Your task to perform on an android device: all mails in gmail Image 0: 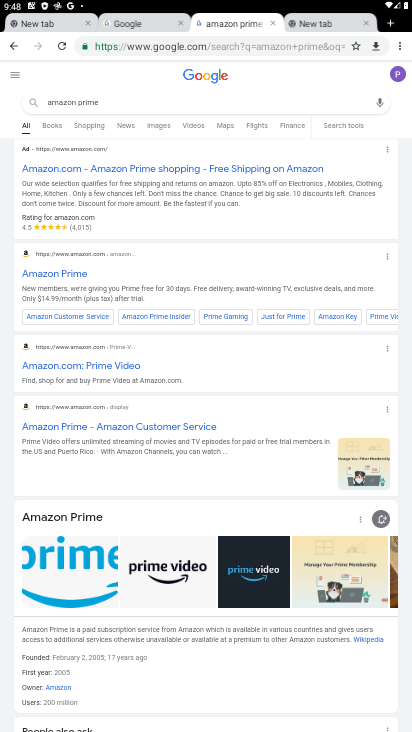
Step 0: press home button
Your task to perform on an android device: all mails in gmail Image 1: 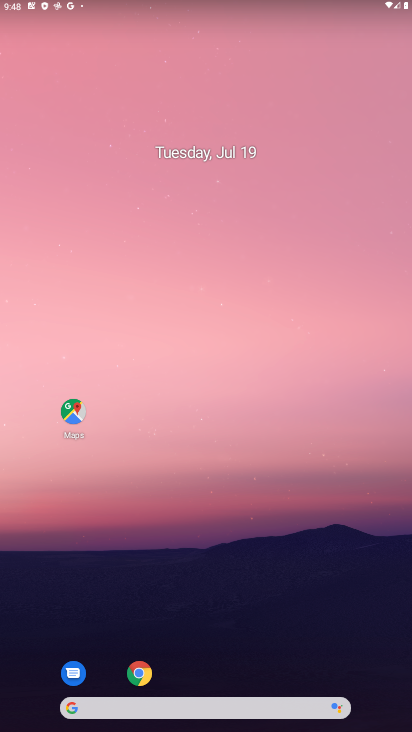
Step 1: drag from (272, 648) to (241, 18)
Your task to perform on an android device: all mails in gmail Image 2: 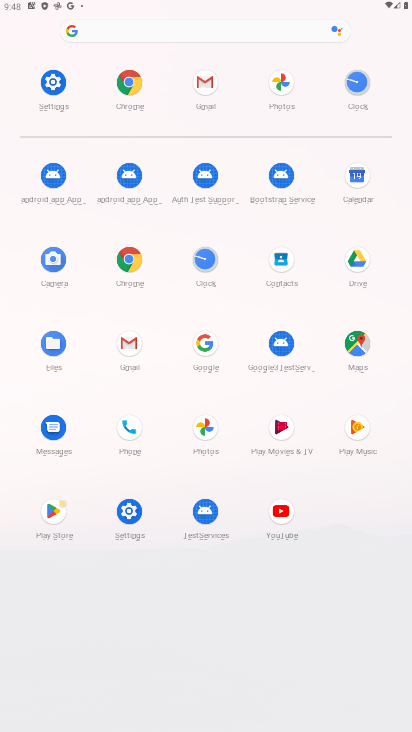
Step 2: click (128, 520)
Your task to perform on an android device: all mails in gmail Image 3: 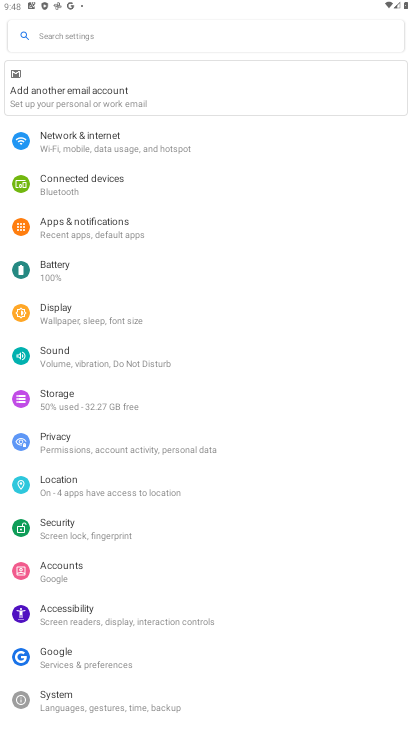
Step 3: press home button
Your task to perform on an android device: all mails in gmail Image 4: 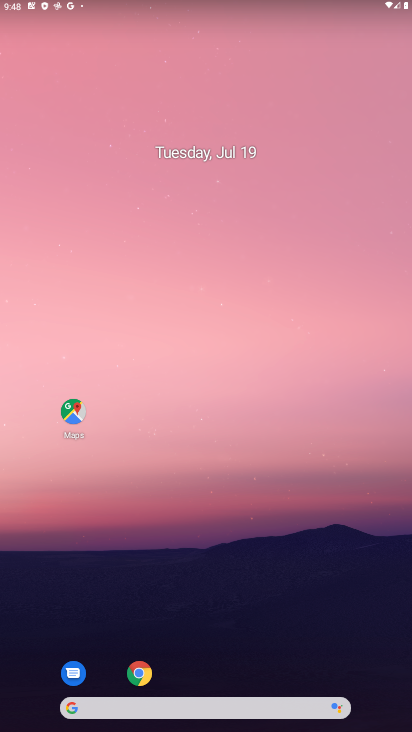
Step 4: drag from (192, 660) to (193, 309)
Your task to perform on an android device: all mails in gmail Image 5: 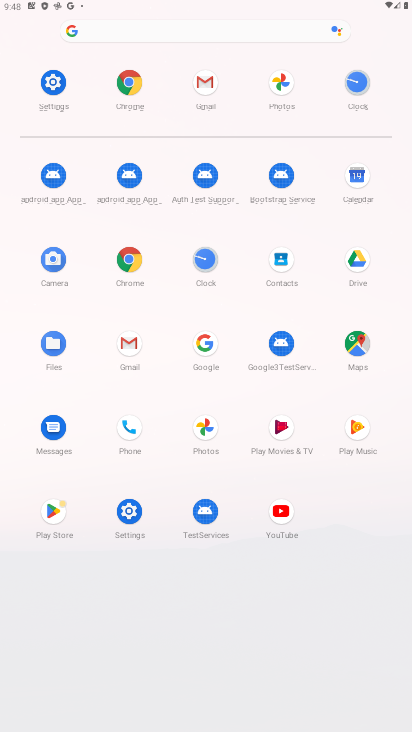
Step 5: click (198, 77)
Your task to perform on an android device: all mails in gmail Image 6: 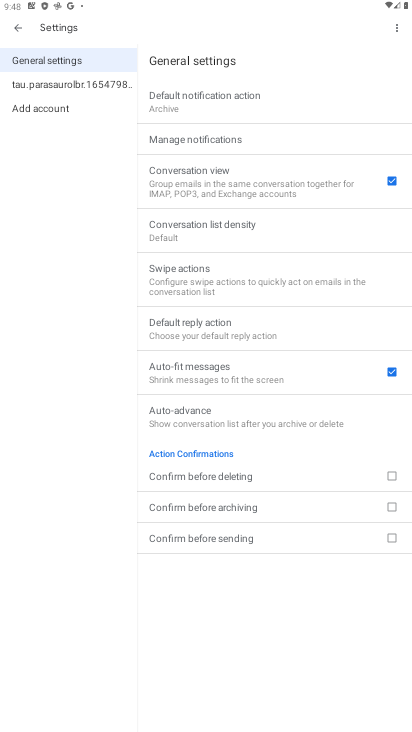
Step 6: click (23, 29)
Your task to perform on an android device: all mails in gmail Image 7: 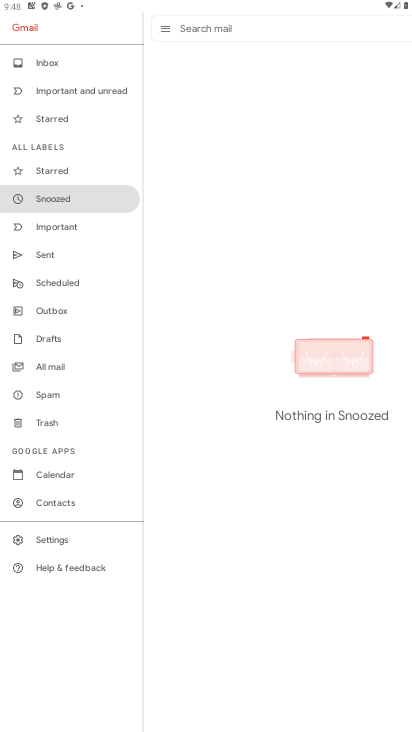
Step 7: click (49, 374)
Your task to perform on an android device: all mails in gmail Image 8: 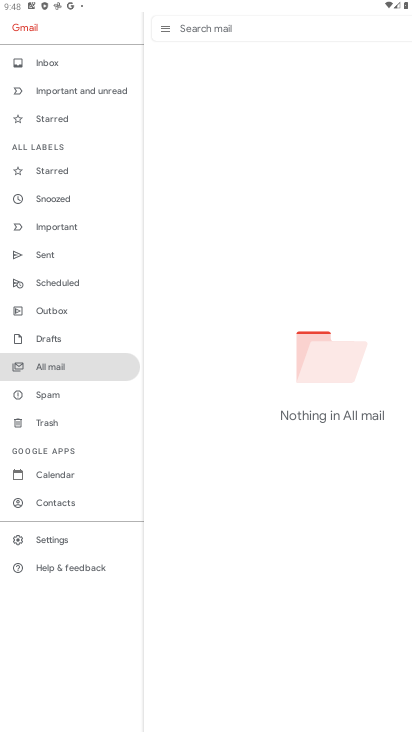
Step 8: task complete